Your task to perform on an android device: toggle data saver in the chrome app Image 0: 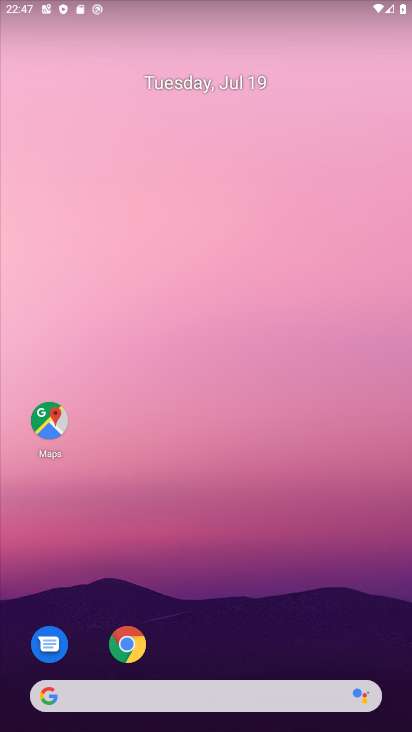
Step 0: click (130, 659)
Your task to perform on an android device: toggle data saver in the chrome app Image 1: 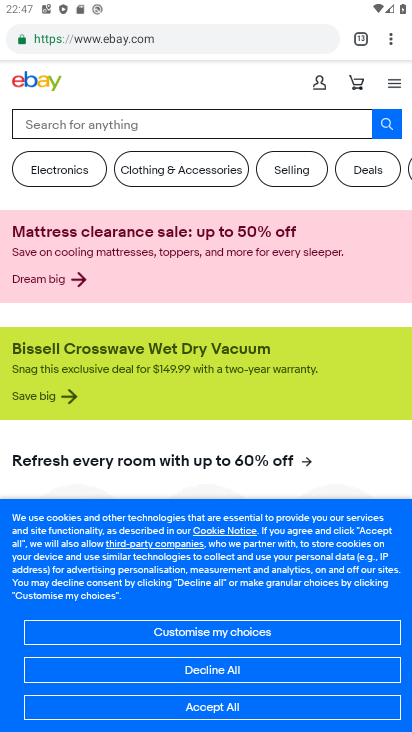
Step 1: click (389, 44)
Your task to perform on an android device: toggle data saver in the chrome app Image 2: 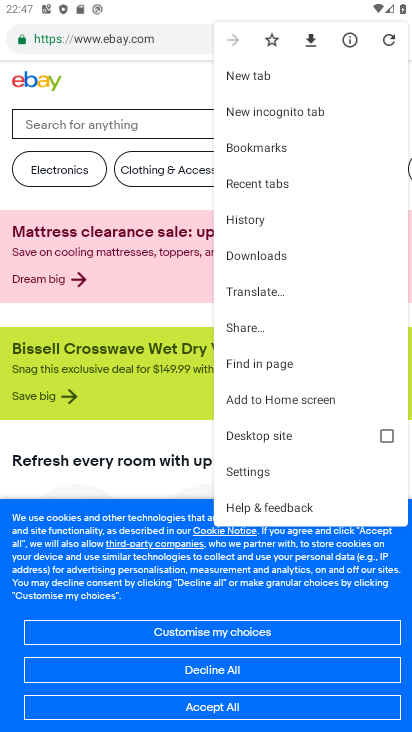
Step 2: click (231, 471)
Your task to perform on an android device: toggle data saver in the chrome app Image 3: 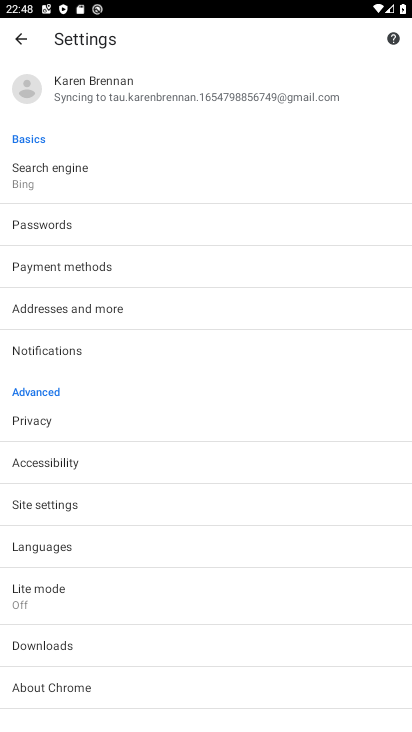
Step 3: click (35, 587)
Your task to perform on an android device: toggle data saver in the chrome app Image 4: 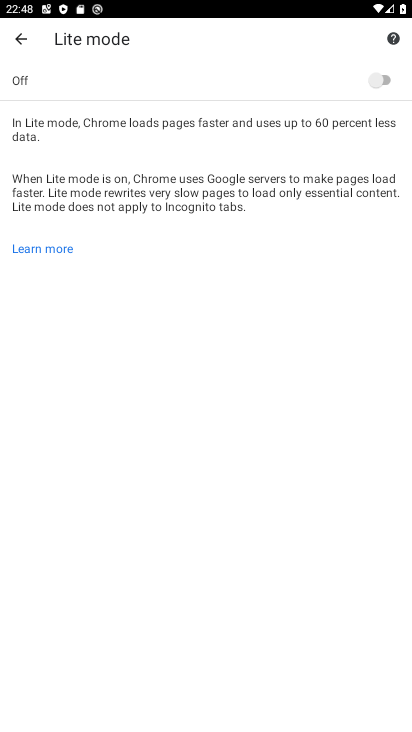
Step 4: click (390, 76)
Your task to perform on an android device: toggle data saver in the chrome app Image 5: 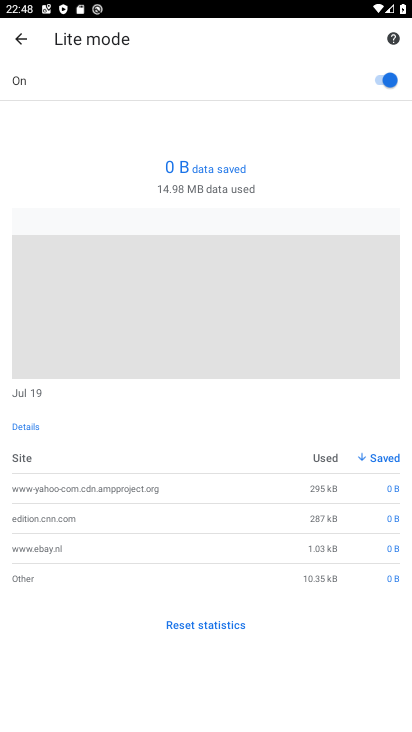
Step 5: task complete